Your task to perform on an android device: set the timer Image 0: 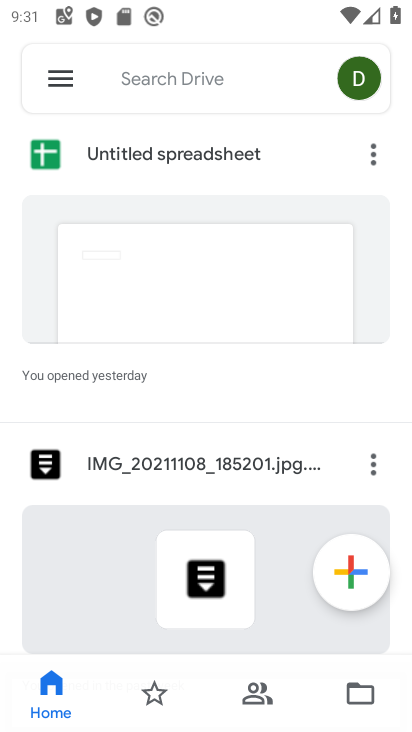
Step 0: press home button
Your task to perform on an android device: set the timer Image 1: 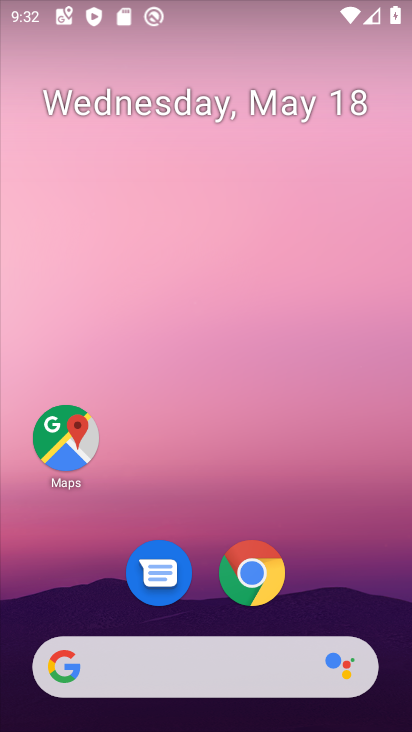
Step 1: drag from (149, 703) to (208, 16)
Your task to perform on an android device: set the timer Image 2: 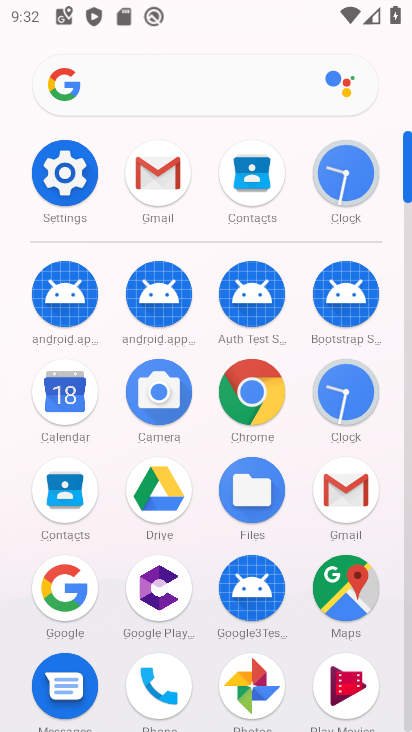
Step 2: click (353, 392)
Your task to perform on an android device: set the timer Image 3: 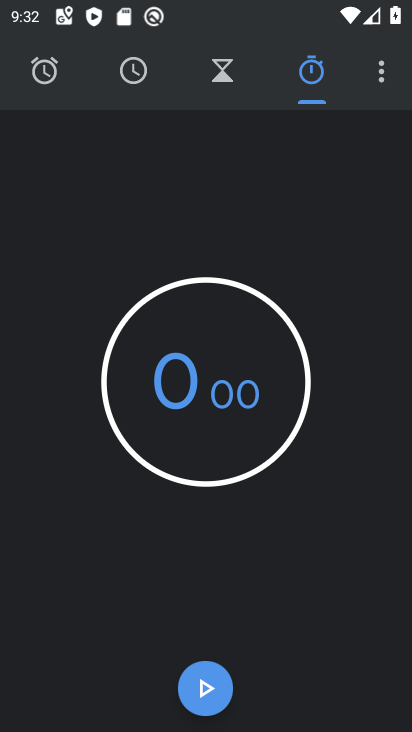
Step 3: click (231, 80)
Your task to perform on an android device: set the timer Image 4: 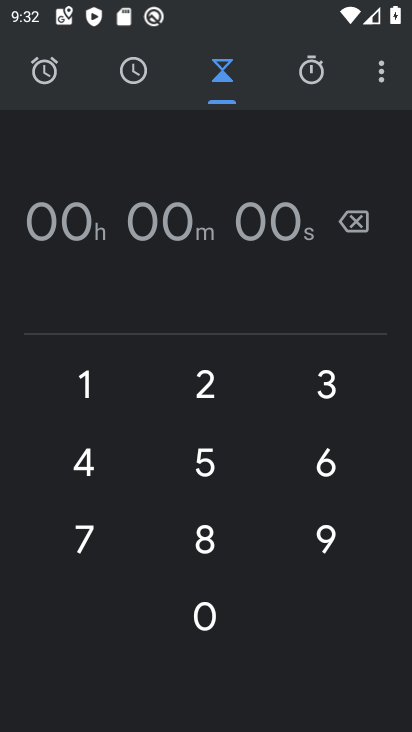
Step 4: click (208, 386)
Your task to perform on an android device: set the timer Image 5: 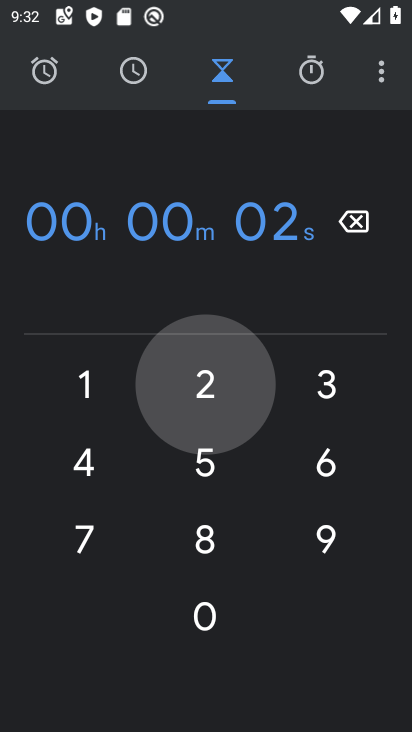
Step 5: click (208, 455)
Your task to perform on an android device: set the timer Image 6: 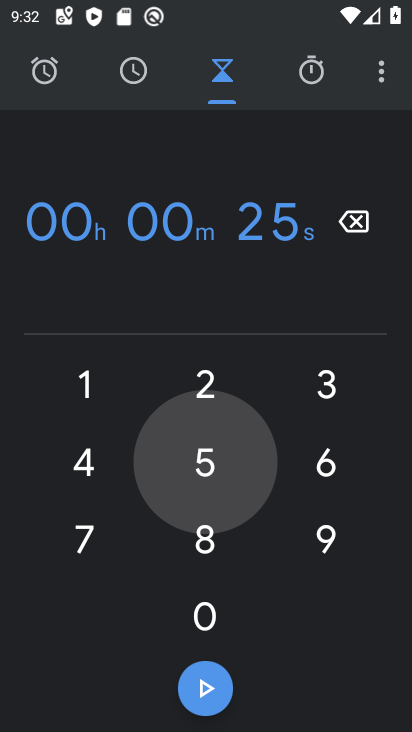
Step 6: click (218, 533)
Your task to perform on an android device: set the timer Image 7: 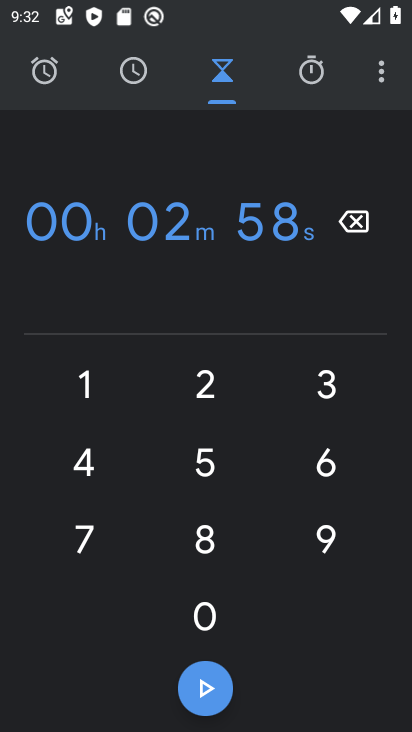
Step 7: task complete